Your task to perform on an android device: remove spam from my inbox in the gmail app Image 0: 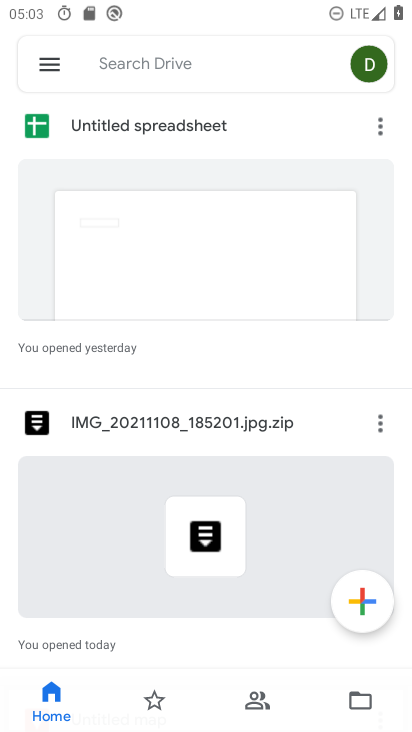
Step 0: press back button
Your task to perform on an android device: remove spam from my inbox in the gmail app Image 1: 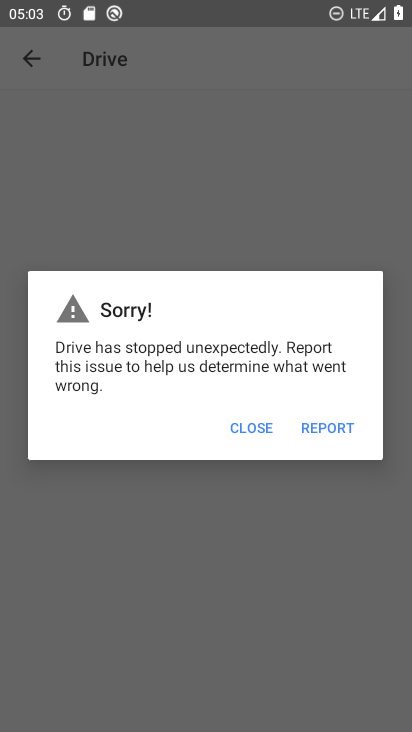
Step 1: press home button
Your task to perform on an android device: remove spam from my inbox in the gmail app Image 2: 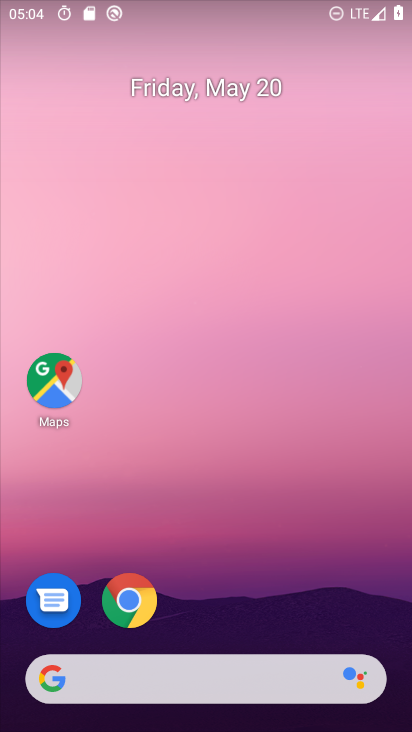
Step 2: drag from (255, 600) to (317, 69)
Your task to perform on an android device: remove spam from my inbox in the gmail app Image 3: 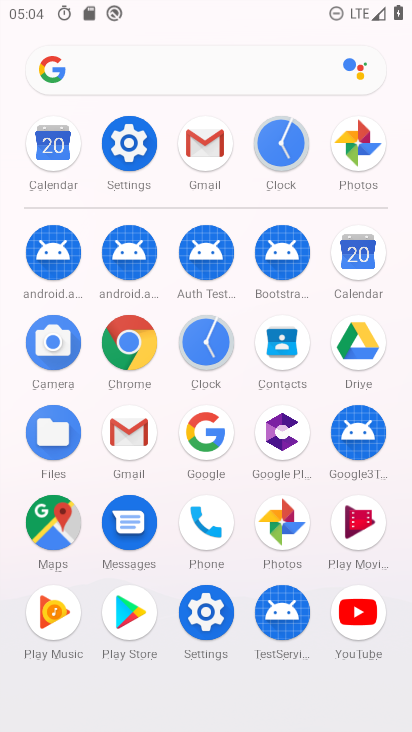
Step 3: click (196, 151)
Your task to perform on an android device: remove spam from my inbox in the gmail app Image 4: 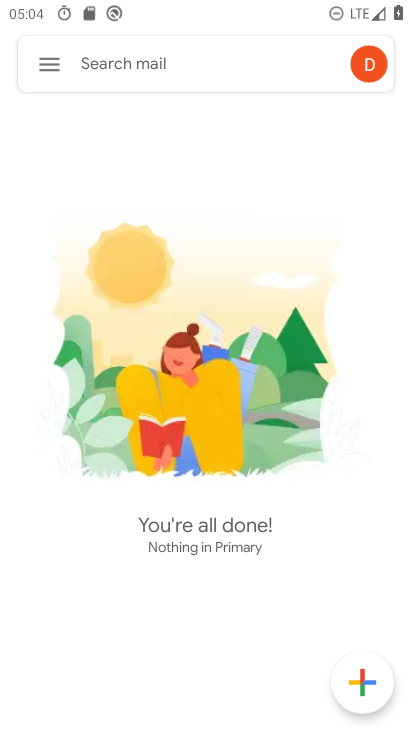
Step 4: click (43, 62)
Your task to perform on an android device: remove spam from my inbox in the gmail app Image 5: 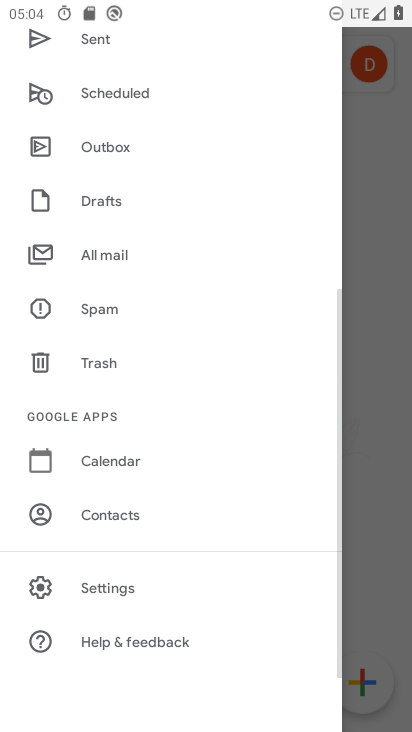
Step 5: click (94, 305)
Your task to perform on an android device: remove spam from my inbox in the gmail app Image 6: 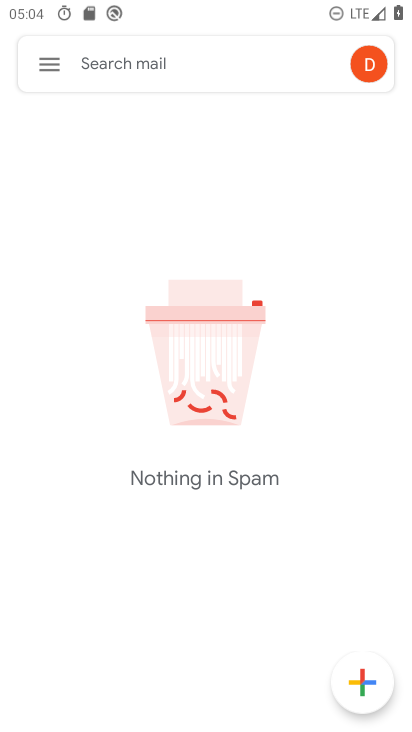
Step 6: task complete